Your task to perform on an android device: Go to display settings Image 0: 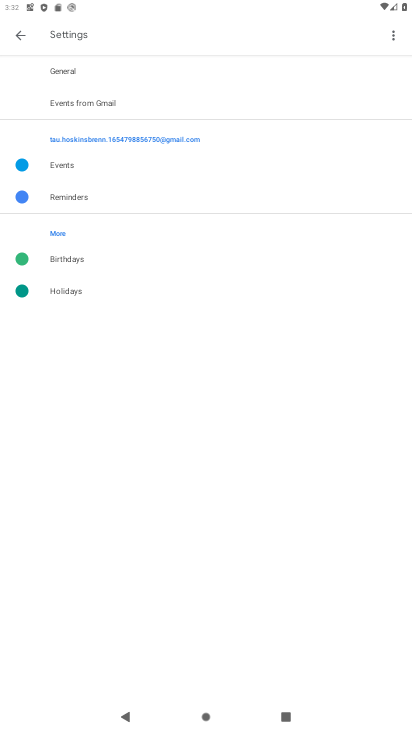
Step 0: press home button
Your task to perform on an android device: Go to display settings Image 1: 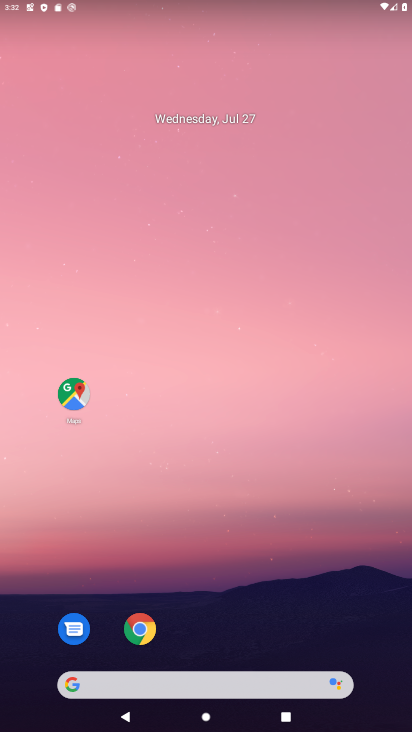
Step 1: drag from (353, 570) to (307, 106)
Your task to perform on an android device: Go to display settings Image 2: 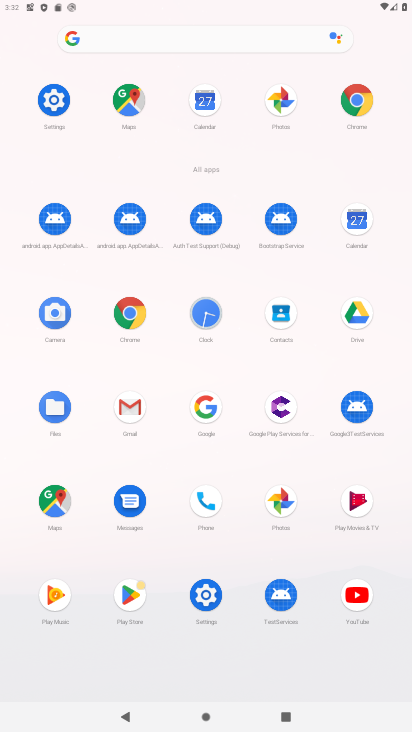
Step 2: click (60, 101)
Your task to perform on an android device: Go to display settings Image 3: 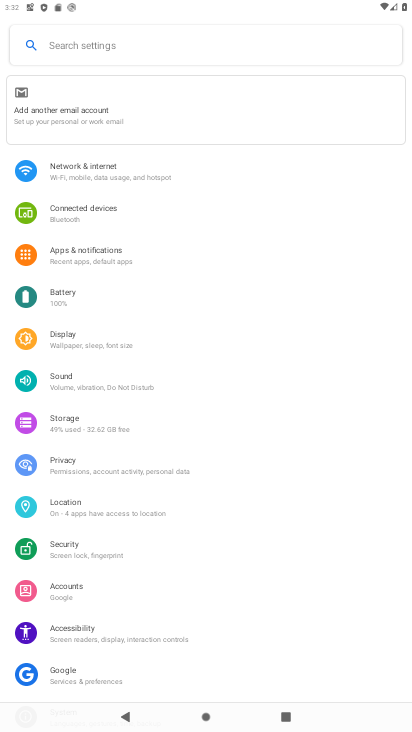
Step 3: click (102, 353)
Your task to perform on an android device: Go to display settings Image 4: 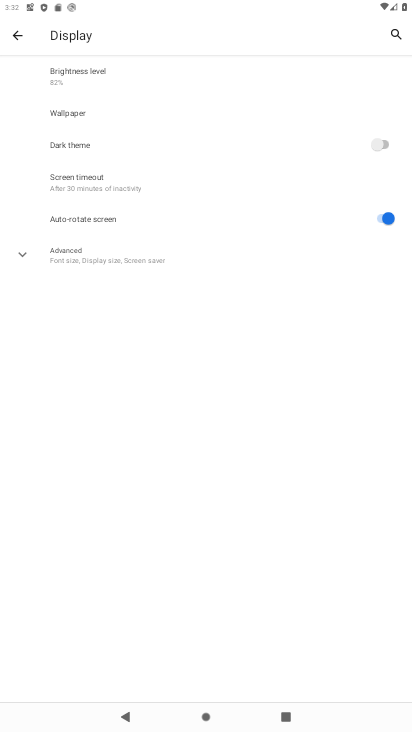
Step 4: task complete